Your task to perform on an android device: Set the phone to "Do not disturb". Image 0: 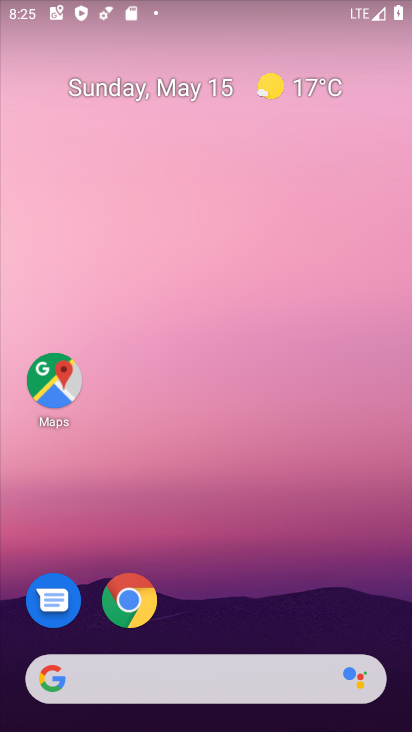
Step 0: drag from (235, 591) to (194, 165)
Your task to perform on an android device: Set the phone to "Do not disturb". Image 1: 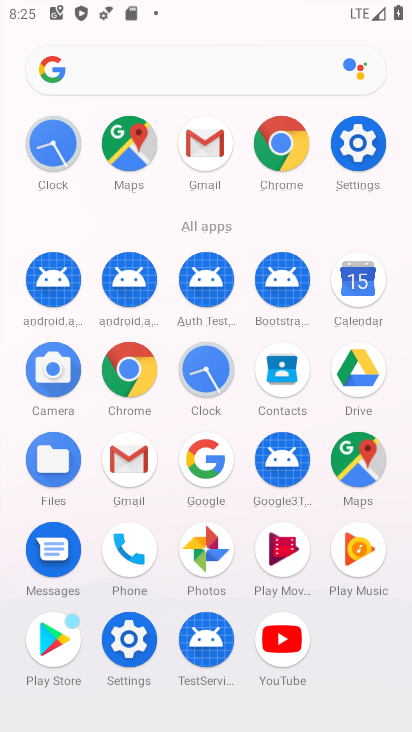
Step 1: click (359, 144)
Your task to perform on an android device: Set the phone to "Do not disturb". Image 2: 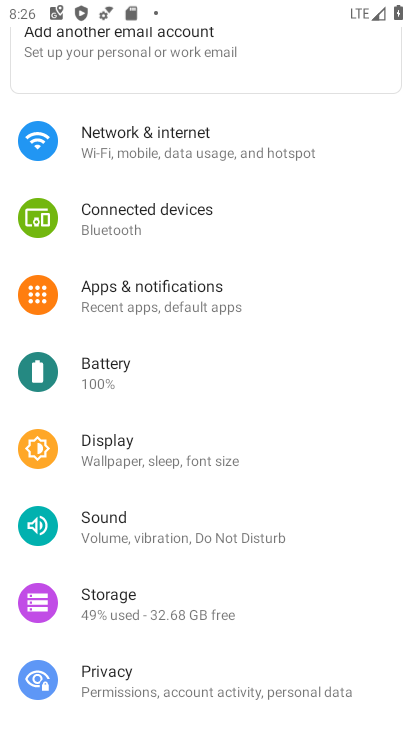
Step 2: click (180, 540)
Your task to perform on an android device: Set the phone to "Do not disturb". Image 3: 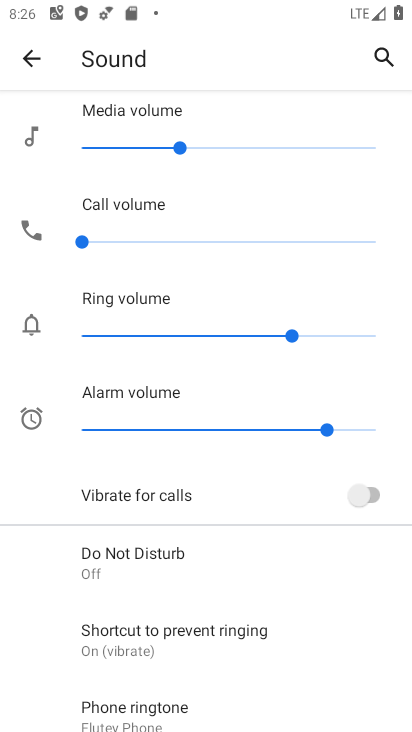
Step 3: click (180, 540)
Your task to perform on an android device: Set the phone to "Do not disturb". Image 4: 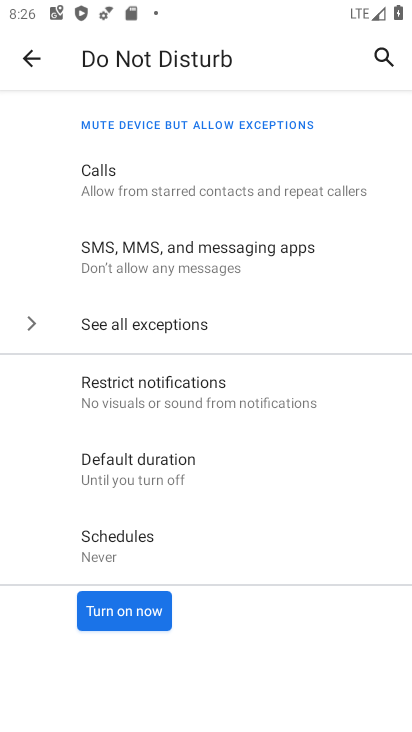
Step 4: click (136, 616)
Your task to perform on an android device: Set the phone to "Do not disturb". Image 5: 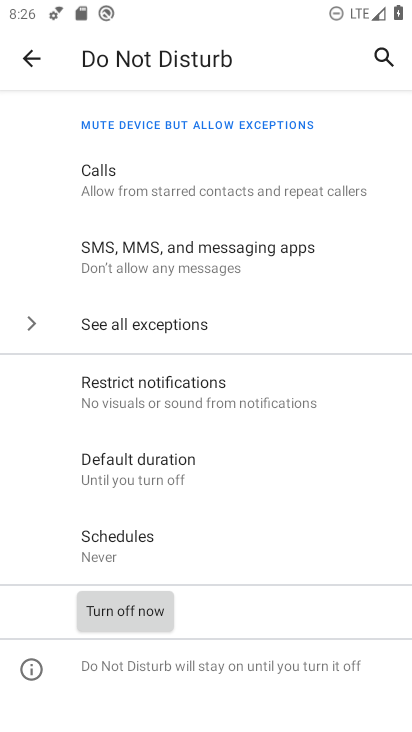
Step 5: task complete